Your task to perform on an android device: change notification settings in the gmail app Image 0: 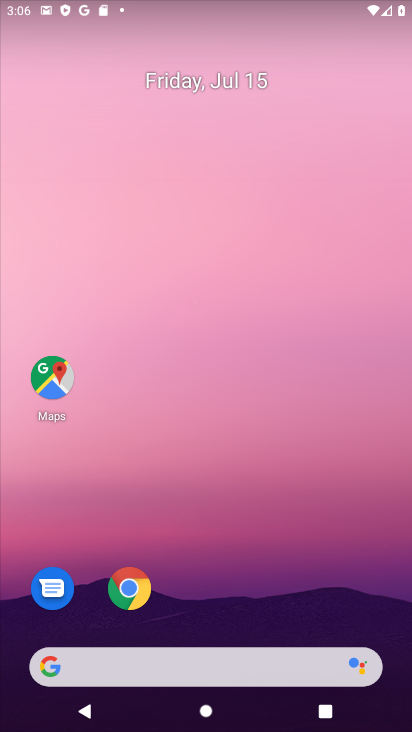
Step 0: drag from (360, 620) to (245, 54)
Your task to perform on an android device: change notification settings in the gmail app Image 1: 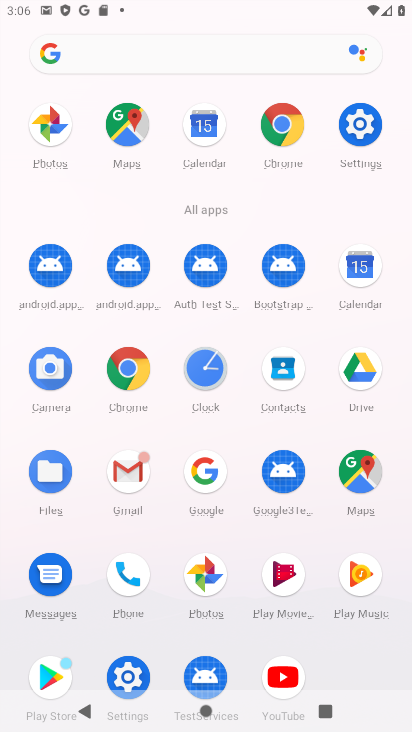
Step 1: click (127, 475)
Your task to perform on an android device: change notification settings in the gmail app Image 2: 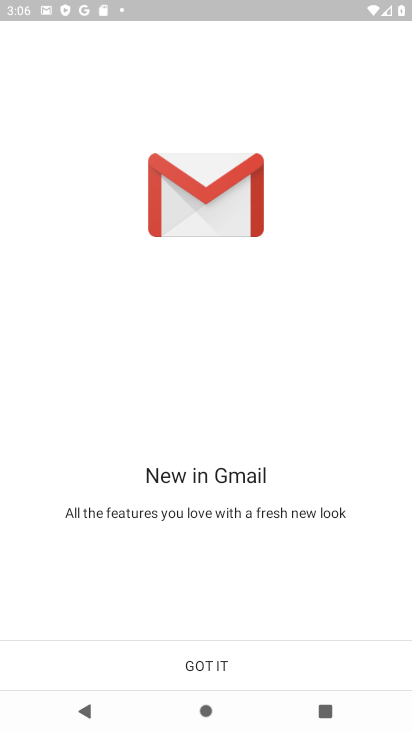
Step 2: click (231, 667)
Your task to perform on an android device: change notification settings in the gmail app Image 3: 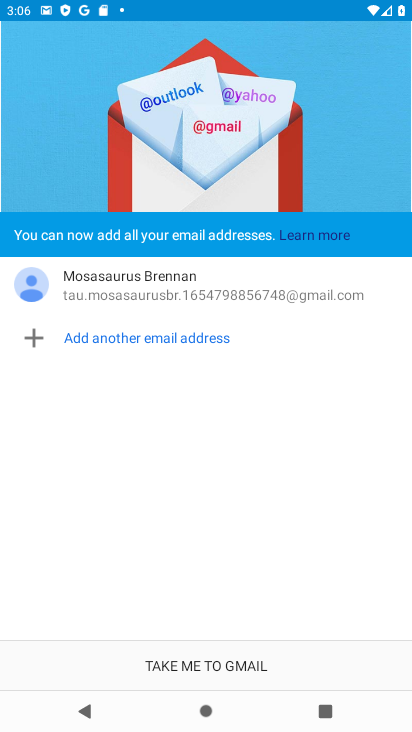
Step 3: click (231, 667)
Your task to perform on an android device: change notification settings in the gmail app Image 4: 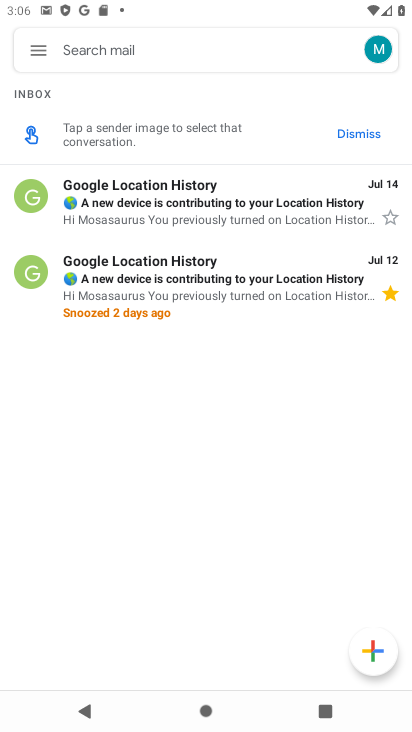
Step 4: click (43, 58)
Your task to perform on an android device: change notification settings in the gmail app Image 5: 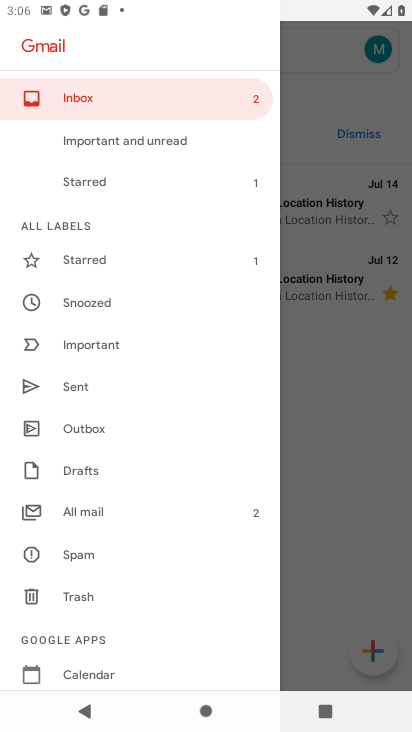
Step 5: drag from (118, 647) to (84, 356)
Your task to perform on an android device: change notification settings in the gmail app Image 6: 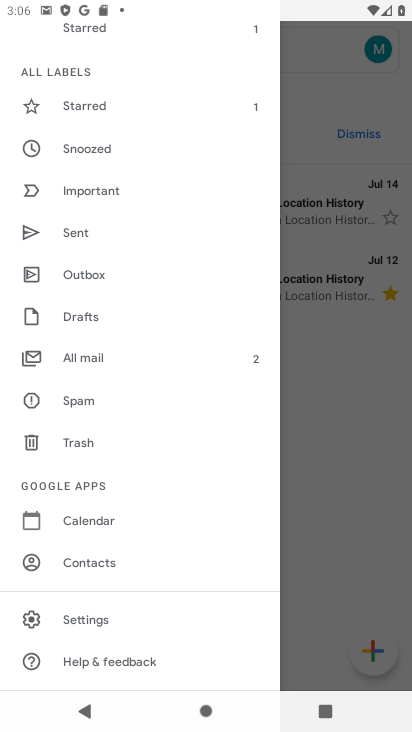
Step 6: click (87, 626)
Your task to perform on an android device: change notification settings in the gmail app Image 7: 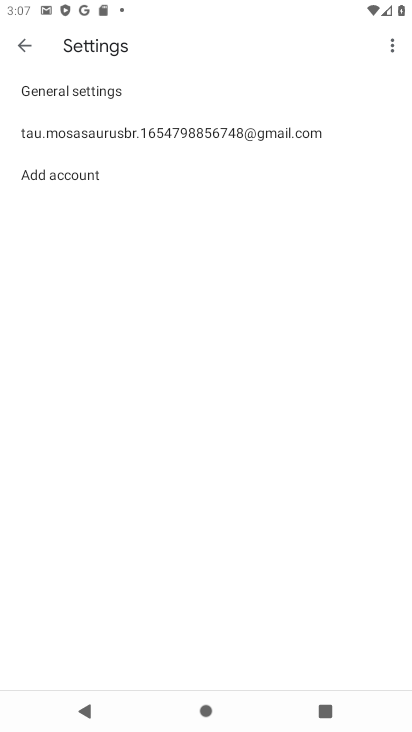
Step 7: click (300, 142)
Your task to perform on an android device: change notification settings in the gmail app Image 8: 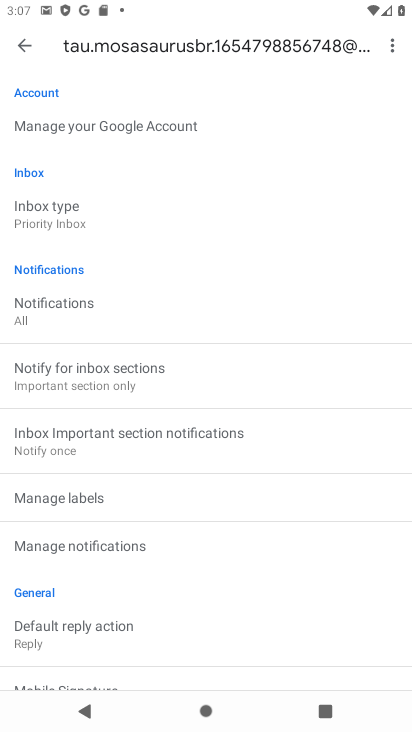
Step 8: click (174, 544)
Your task to perform on an android device: change notification settings in the gmail app Image 9: 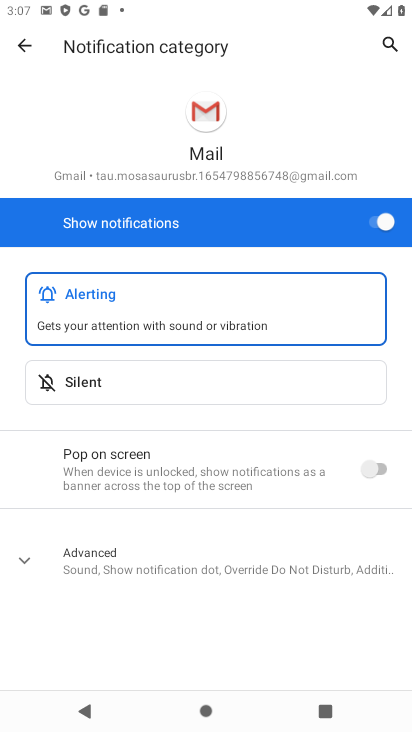
Step 9: click (276, 370)
Your task to perform on an android device: change notification settings in the gmail app Image 10: 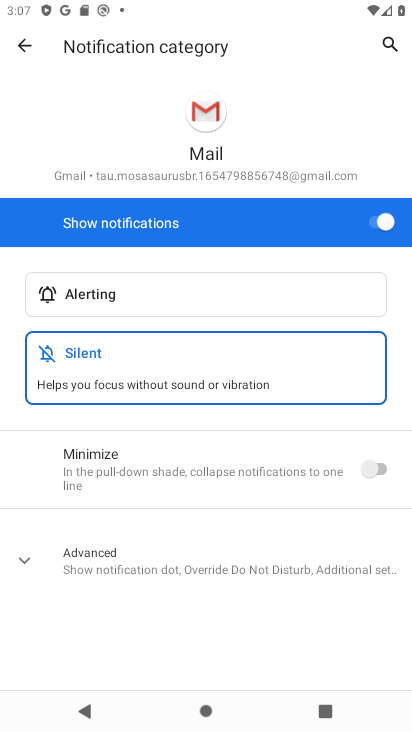
Step 10: click (382, 471)
Your task to perform on an android device: change notification settings in the gmail app Image 11: 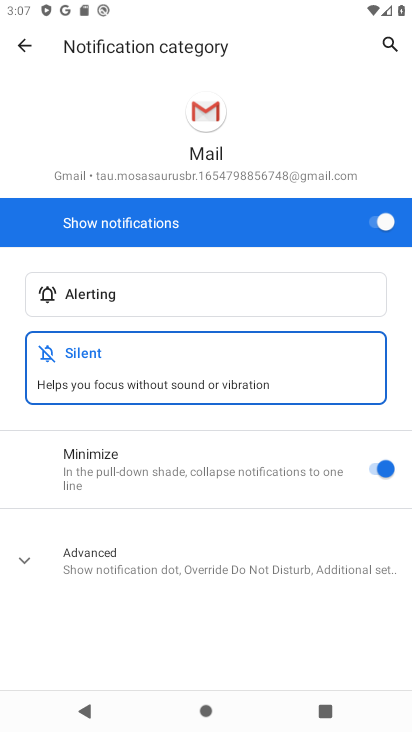
Step 11: task complete